Your task to perform on an android device: turn on improve location accuracy Image 0: 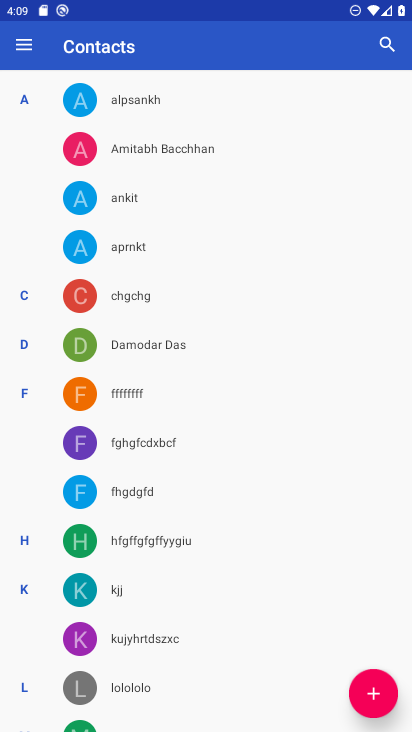
Step 0: press home button
Your task to perform on an android device: turn on improve location accuracy Image 1: 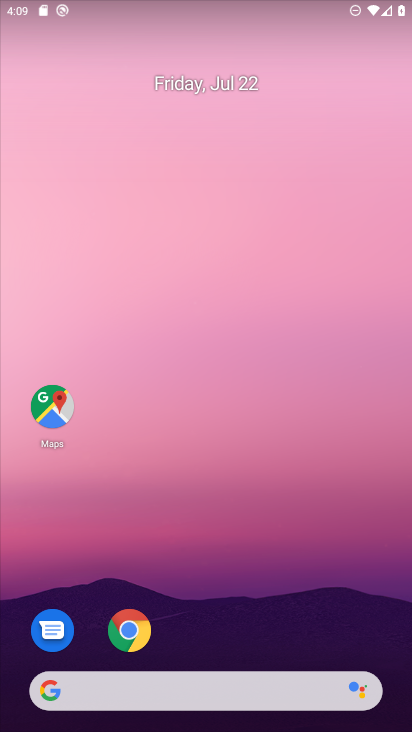
Step 1: drag from (217, 665) to (154, 43)
Your task to perform on an android device: turn on improve location accuracy Image 2: 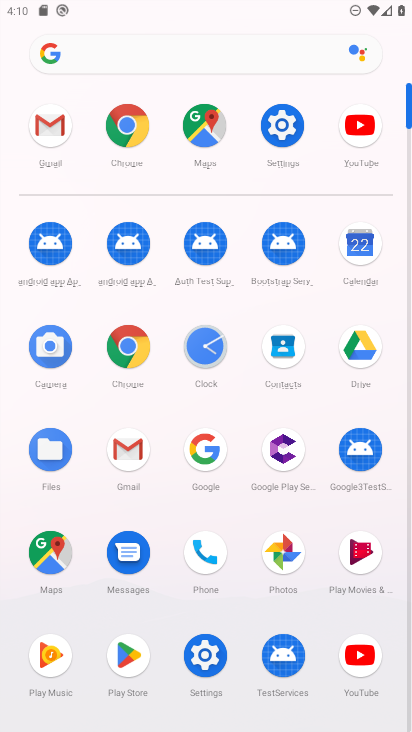
Step 2: click (211, 656)
Your task to perform on an android device: turn on improve location accuracy Image 3: 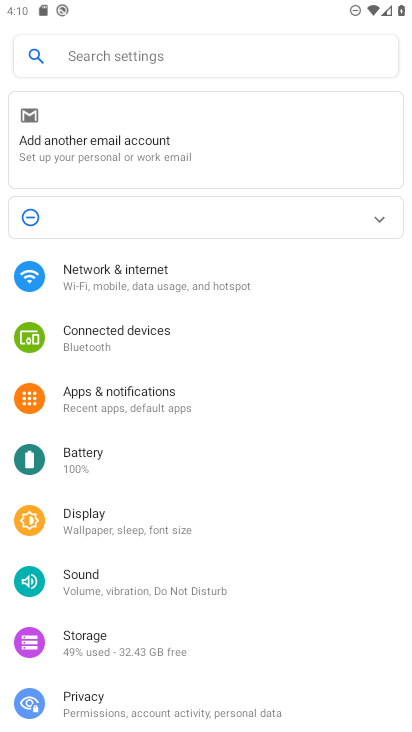
Step 3: drag from (129, 619) to (153, 259)
Your task to perform on an android device: turn on improve location accuracy Image 4: 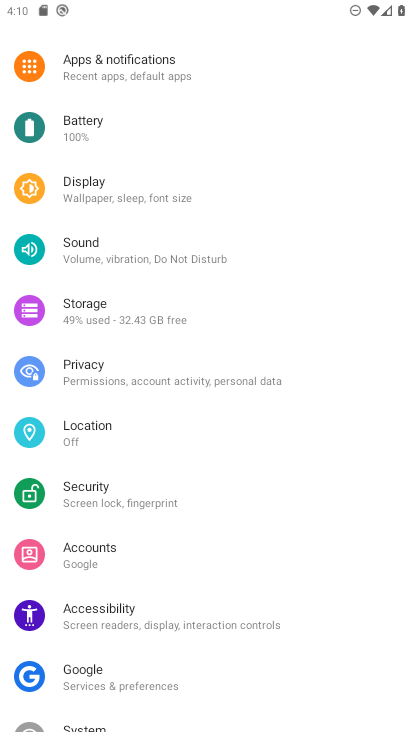
Step 4: click (110, 431)
Your task to perform on an android device: turn on improve location accuracy Image 5: 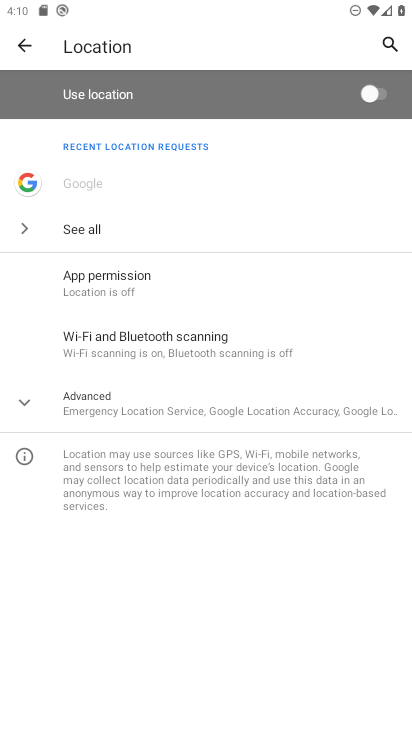
Step 5: click (148, 409)
Your task to perform on an android device: turn on improve location accuracy Image 6: 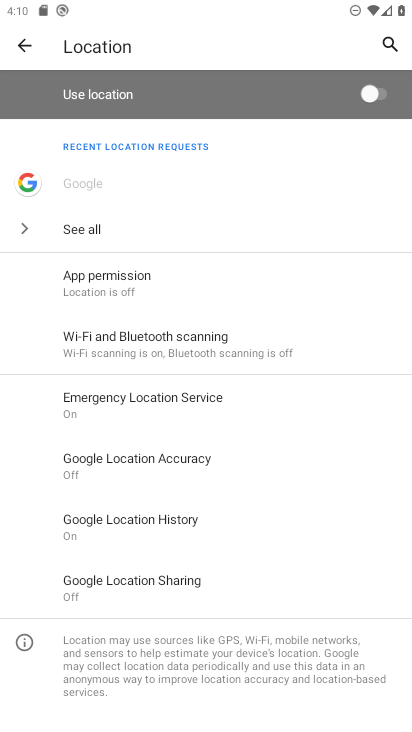
Step 6: click (163, 456)
Your task to perform on an android device: turn on improve location accuracy Image 7: 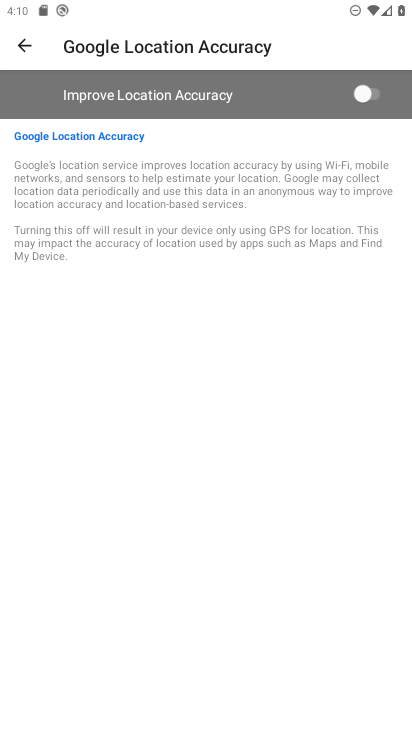
Step 7: click (379, 84)
Your task to perform on an android device: turn on improve location accuracy Image 8: 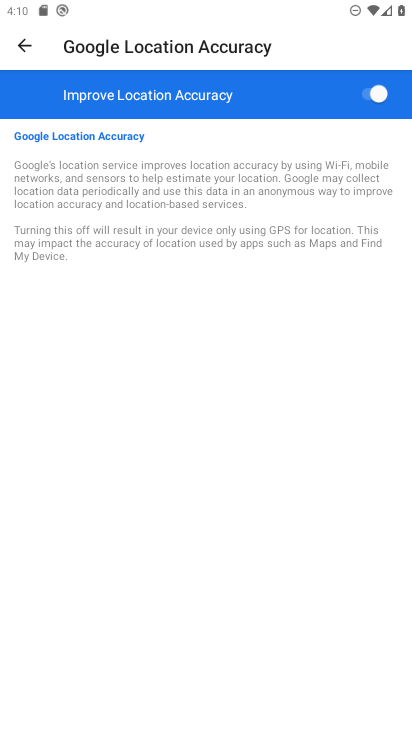
Step 8: task complete